Your task to perform on an android device: Open Reddit.com Image 0: 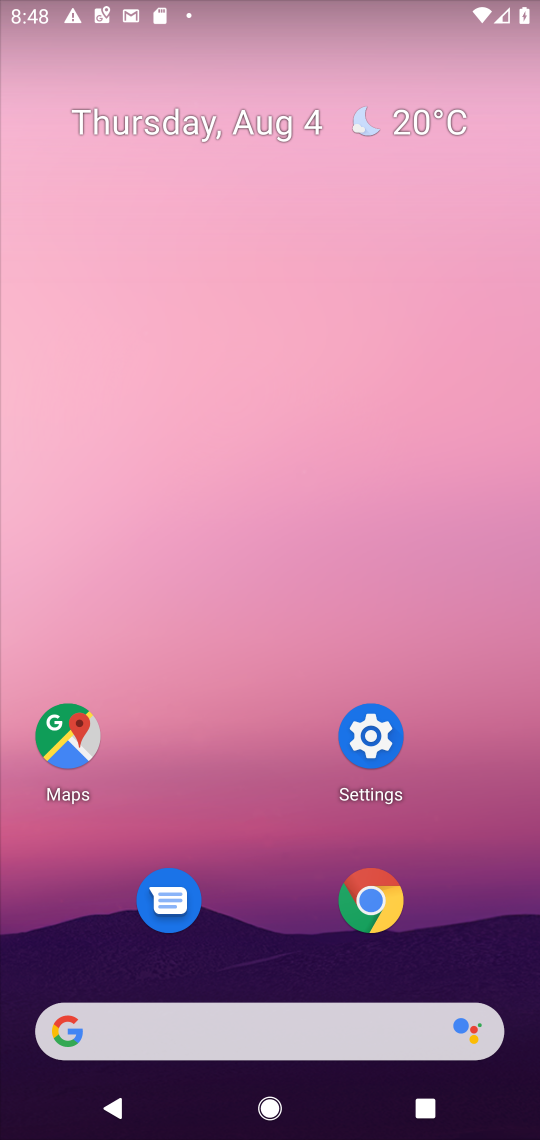
Step 0: click (374, 911)
Your task to perform on an android device: Open Reddit.com Image 1: 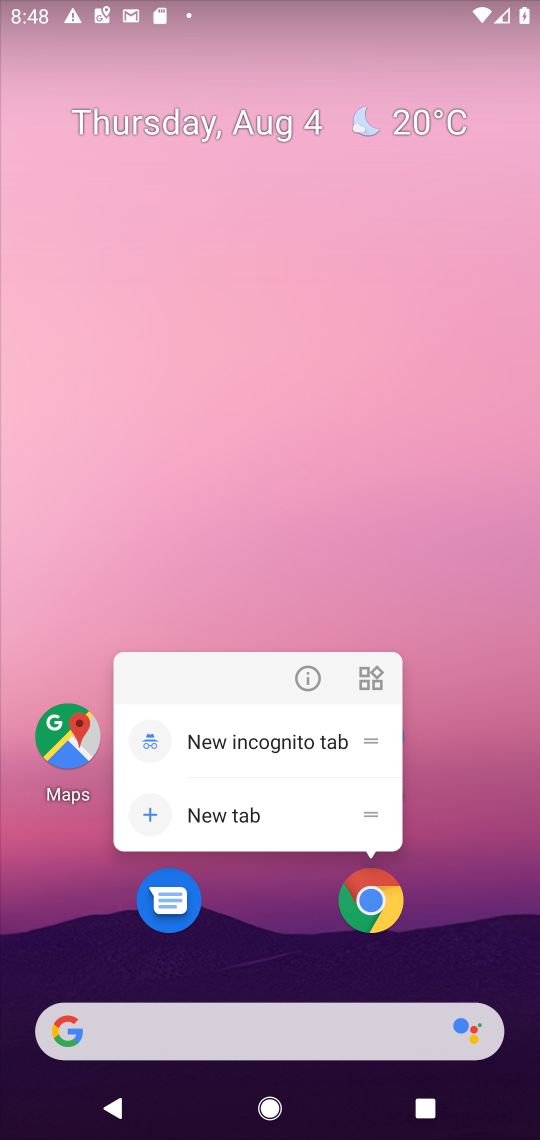
Step 1: click (368, 893)
Your task to perform on an android device: Open Reddit.com Image 2: 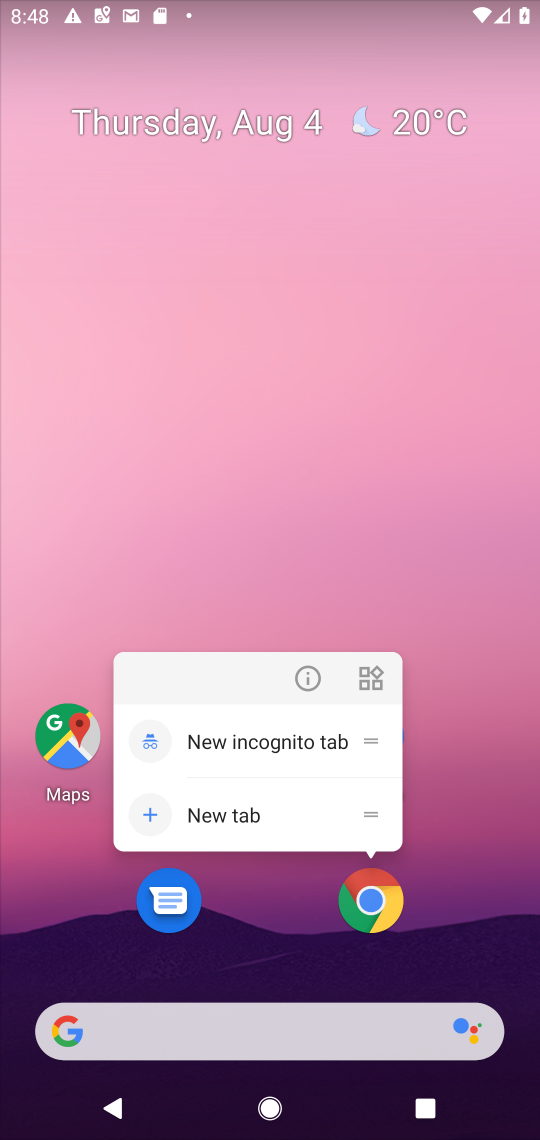
Step 2: click (368, 893)
Your task to perform on an android device: Open Reddit.com Image 3: 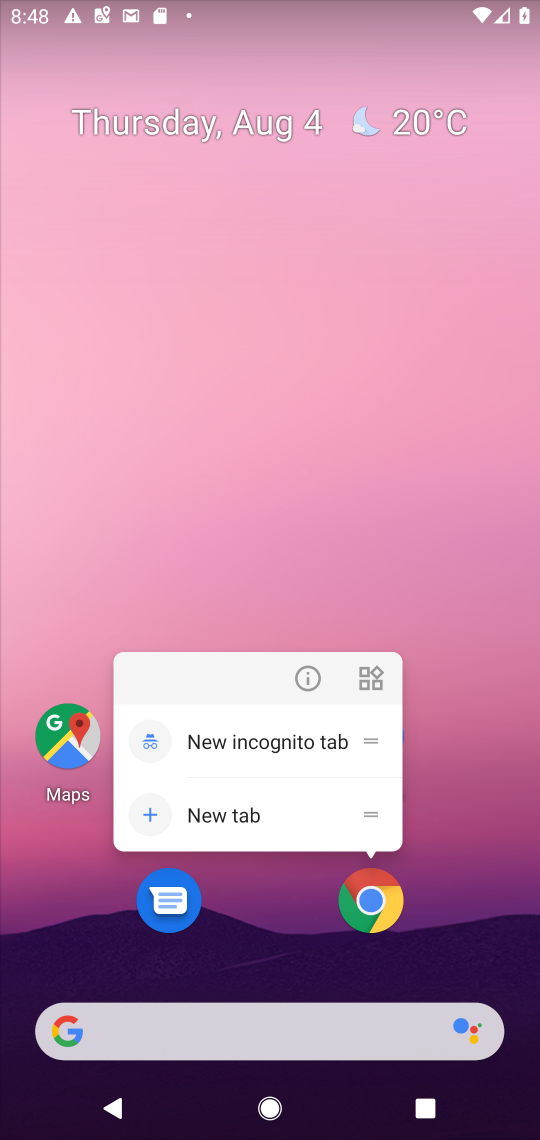
Step 3: click (368, 893)
Your task to perform on an android device: Open Reddit.com Image 4: 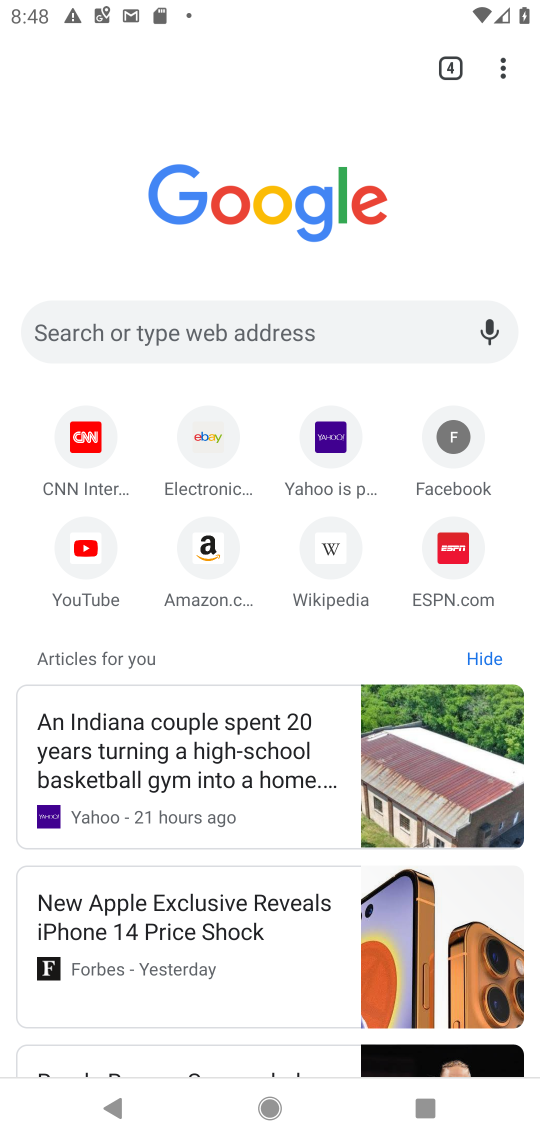
Step 4: click (213, 325)
Your task to perform on an android device: Open Reddit.com Image 5: 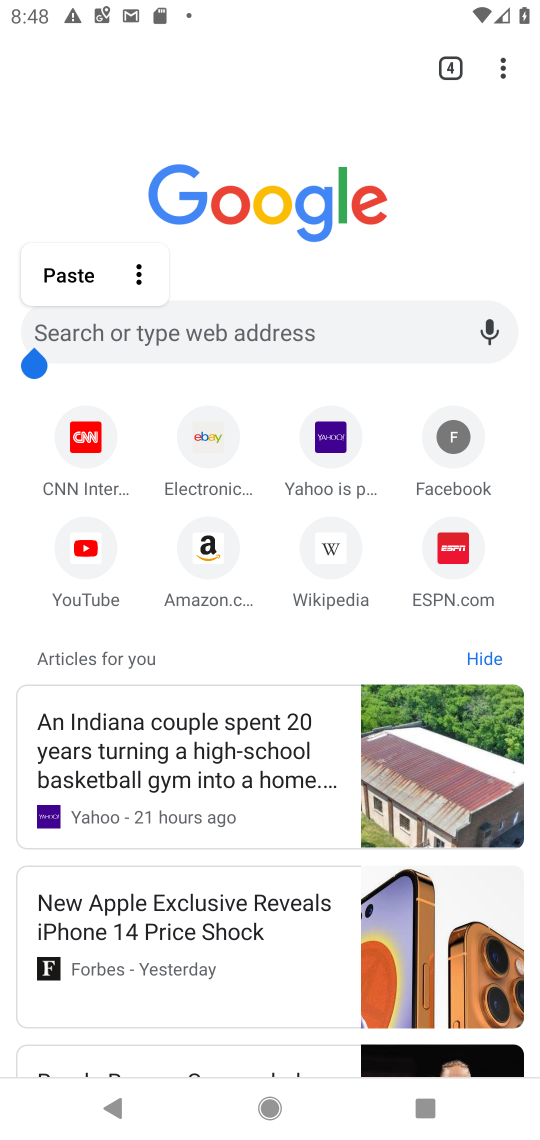
Step 5: click (138, 333)
Your task to perform on an android device: Open Reddit.com Image 6: 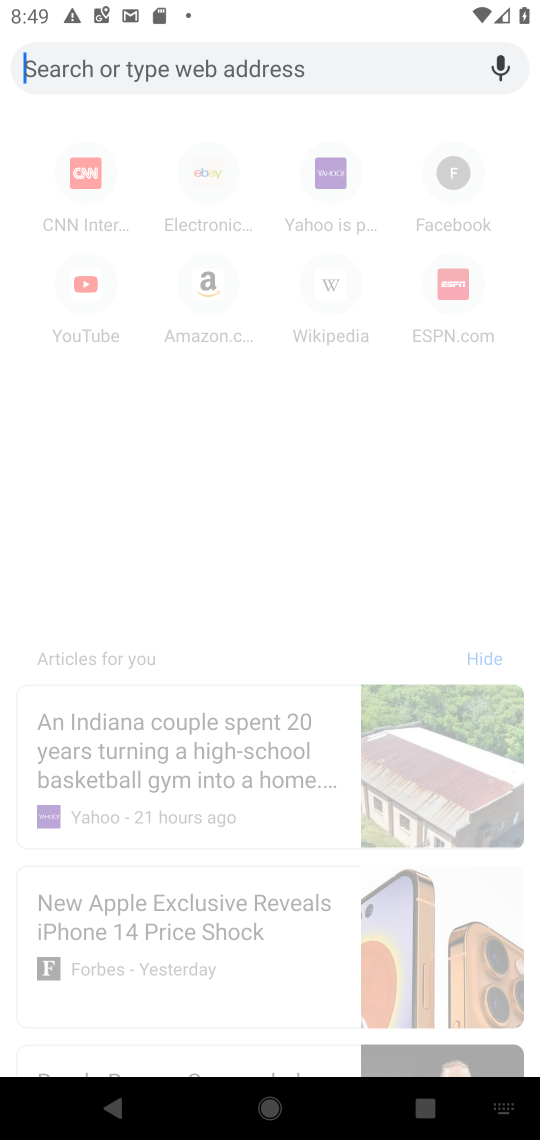
Step 6: type "Reddit.com"
Your task to perform on an android device: Open Reddit.com Image 7: 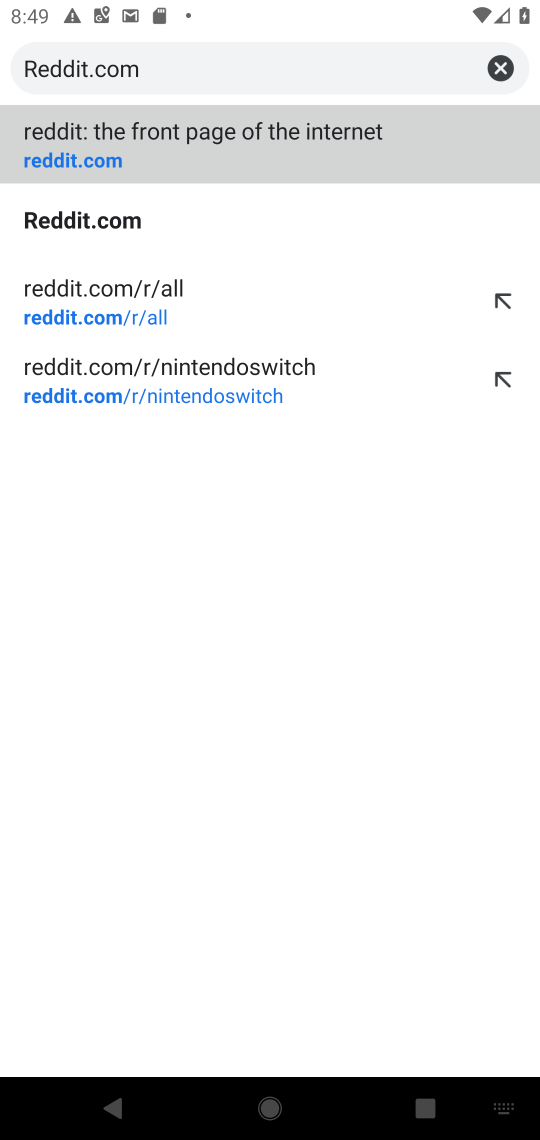
Step 7: click (208, 148)
Your task to perform on an android device: Open Reddit.com Image 8: 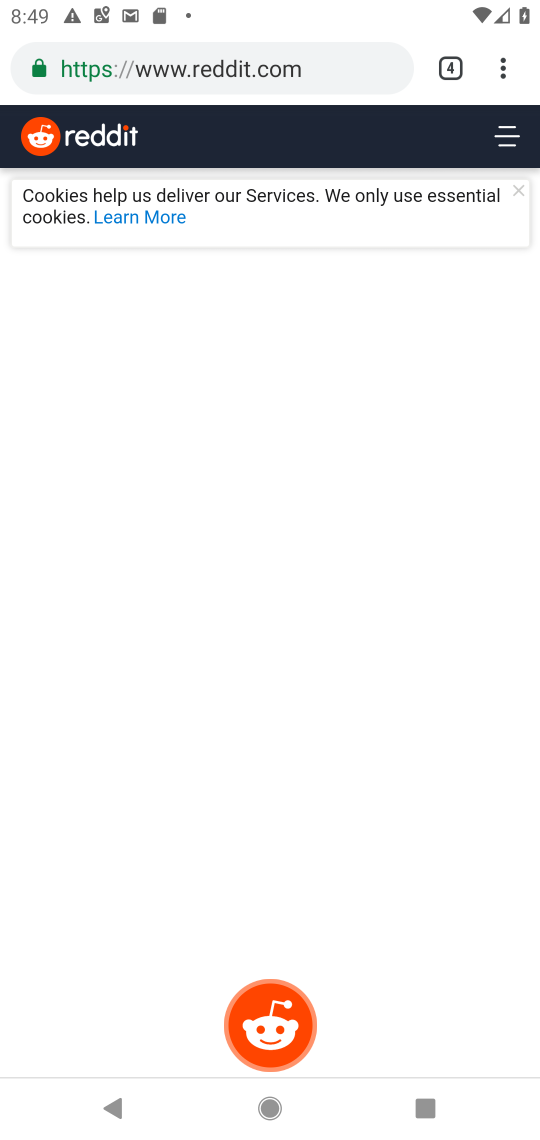
Step 8: task complete